Your task to perform on an android device: Open the stopwatch Image 0: 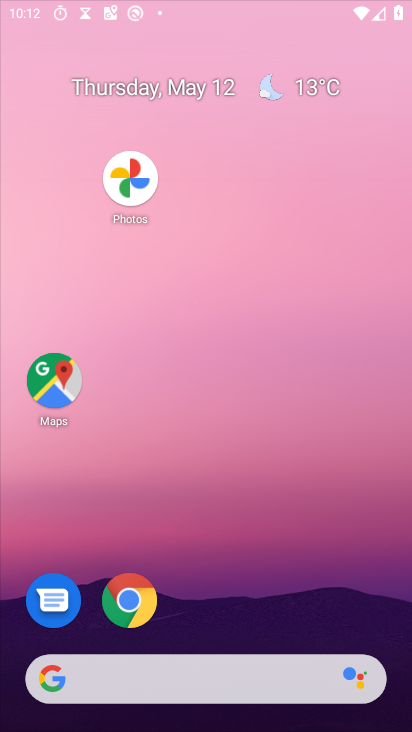
Step 0: drag from (389, 590) to (263, 158)
Your task to perform on an android device: Open the stopwatch Image 1: 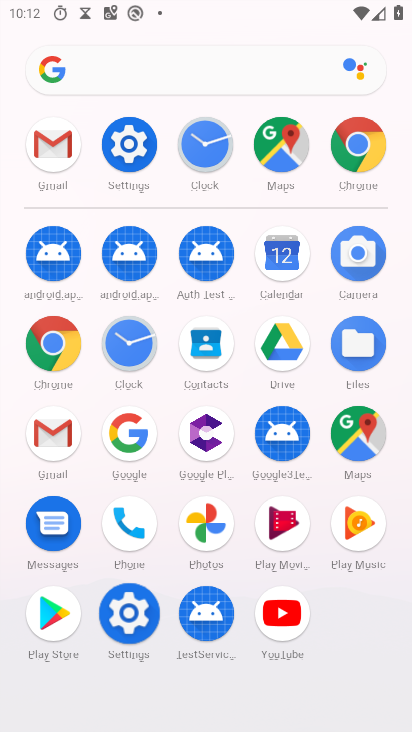
Step 1: click (121, 346)
Your task to perform on an android device: Open the stopwatch Image 2: 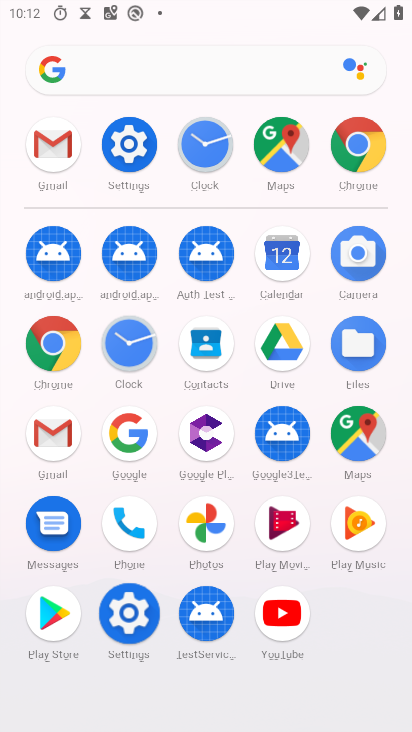
Step 2: click (122, 346)
Your task to perform on an android device: Open the stopwatch Image 3: 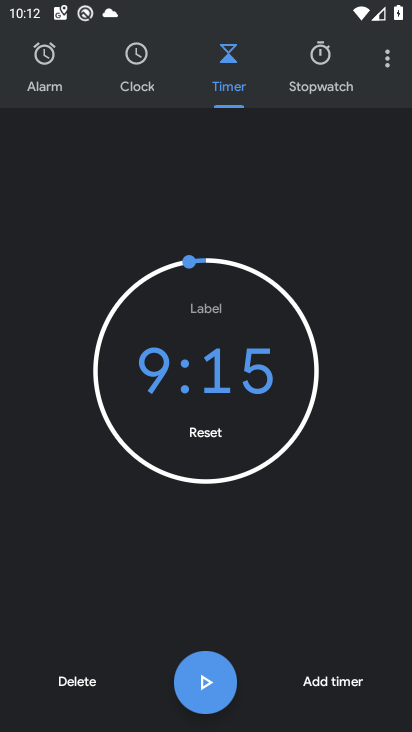
Step 3: click (123, 346)
Your task to perform on an android device: Open the stopwatch Image 4: 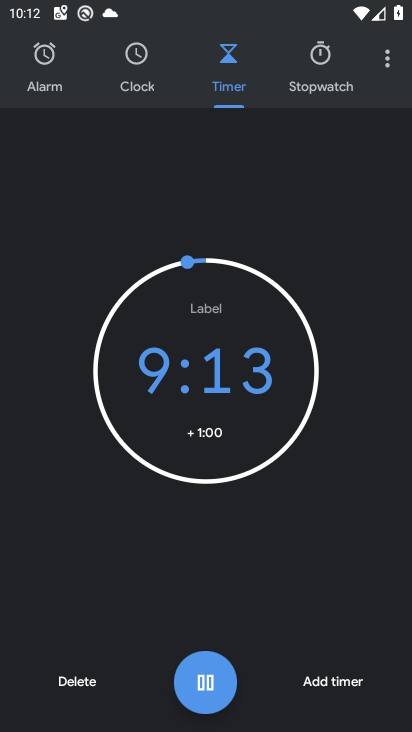
Step 4: click (313, 66)
Your task to perform on an android device: Open the stopwatch Image 5: 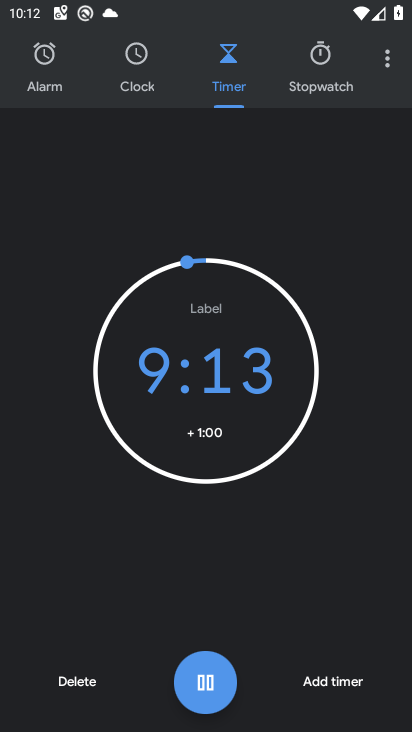
Step 5: click (315, 71)
Your task to perform on an android device: Open the stopwatch Image 6: 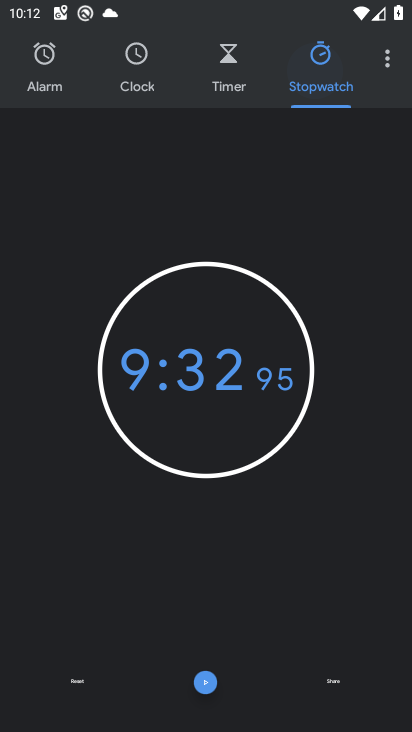
Step 6: click (331, 92)
Your task to perform on an android device: Open the stopwatch Image 7: 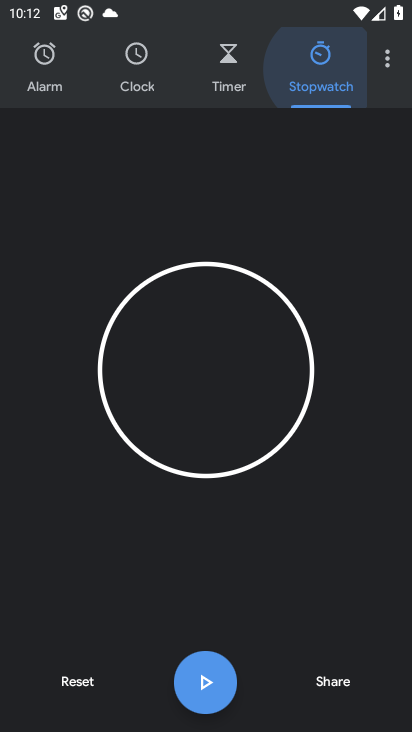
Step 7: click (329, 90)
Your task to perform on an android device: Open the stopwatch Image 8: 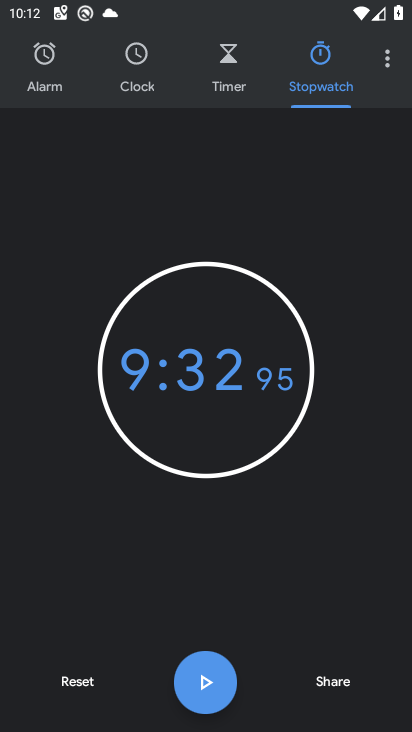
Step 8: task complete